Your task to perform on an android device: Open Google Image 0: 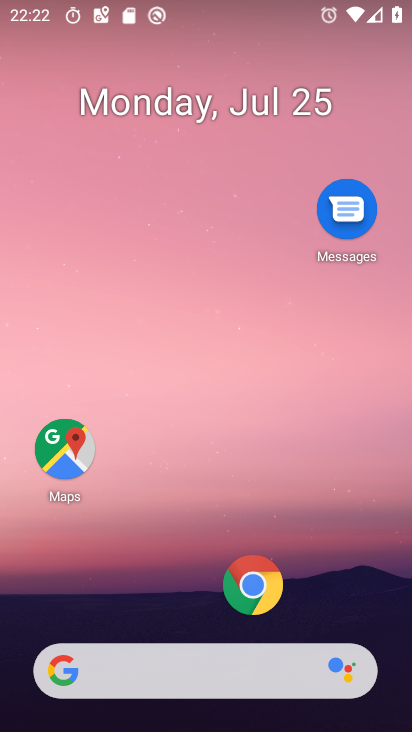
Step 0: press home button
Your task to perform on an android device: Open Google Image 1: 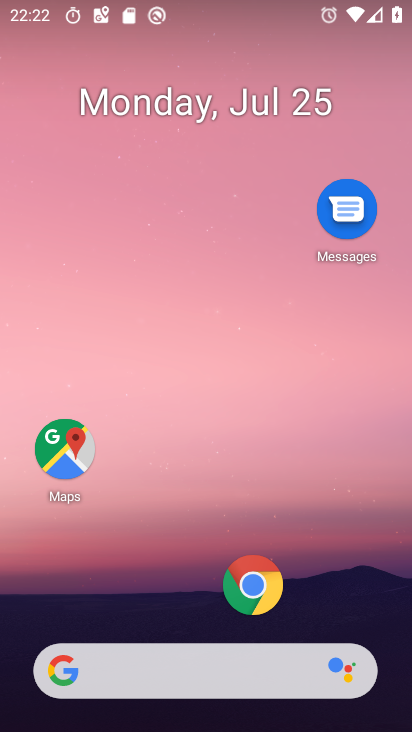
Step 1: drag from (185, 643) to (311, 131)
Your task to perform on an android device: Open Google Image 2: 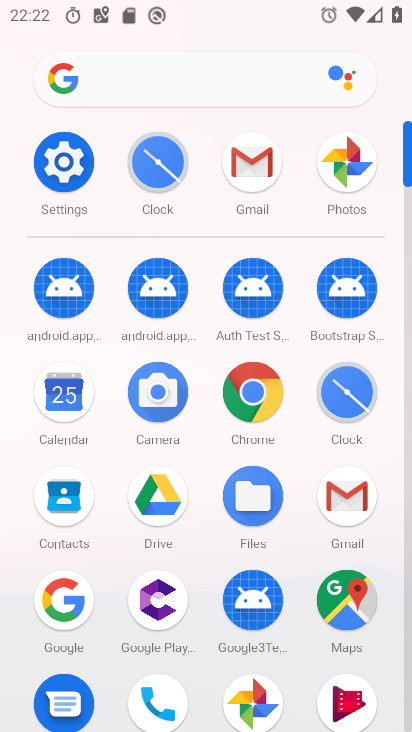
Step 2: click (74, 609)
Your task to perform on an android device: Open Google Image 3: 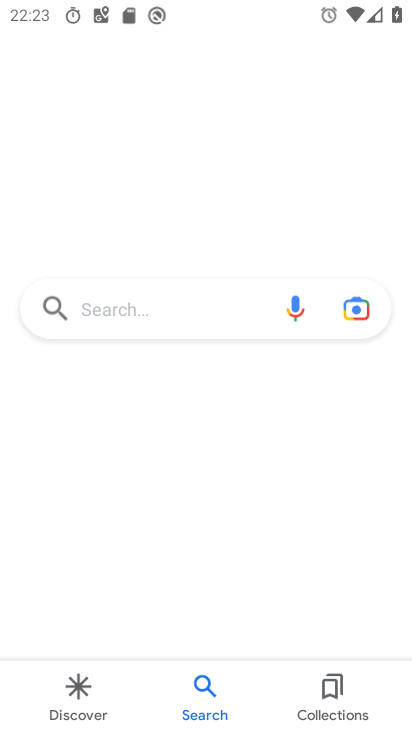
Step 3: task complete